Your task to perform on an android device: turn smart compose on in the gmail app Image 0: 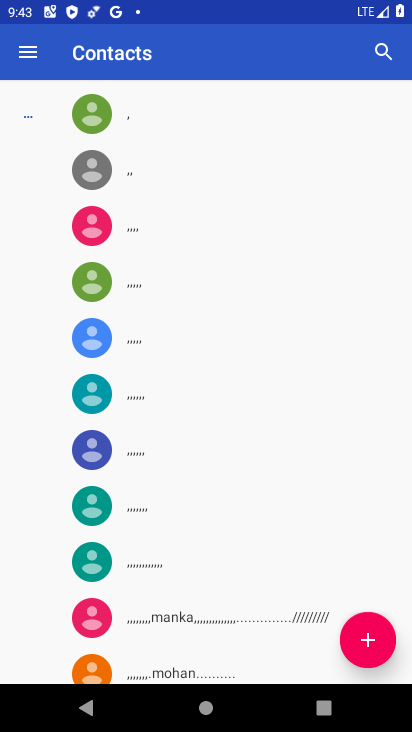
Step 0: press home button
Your task to perform on an android device: turn smart compose on in the gmail app Image 1: 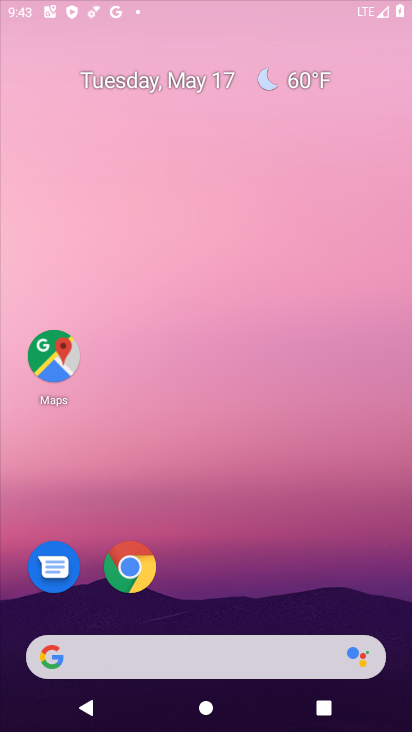
Step 1: drag from (389, 610) to (293, 99)
Your task to perform on an android device: turn smart compose on in the gmail app Image 2: 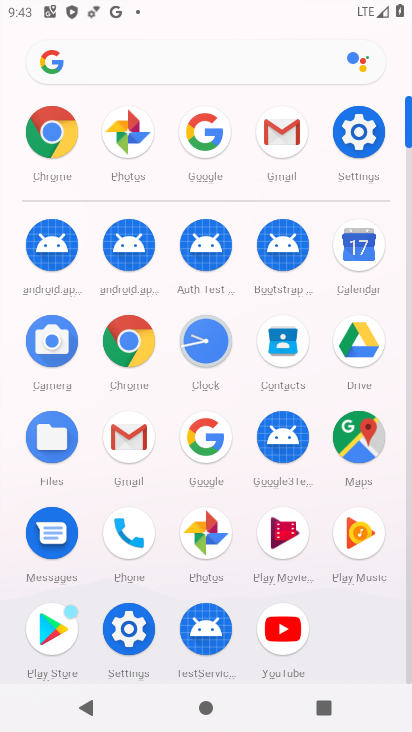
Step 2: click (123, 445)
Your task to perform on an android device: turn smart compose on in the gmail app Image 3: 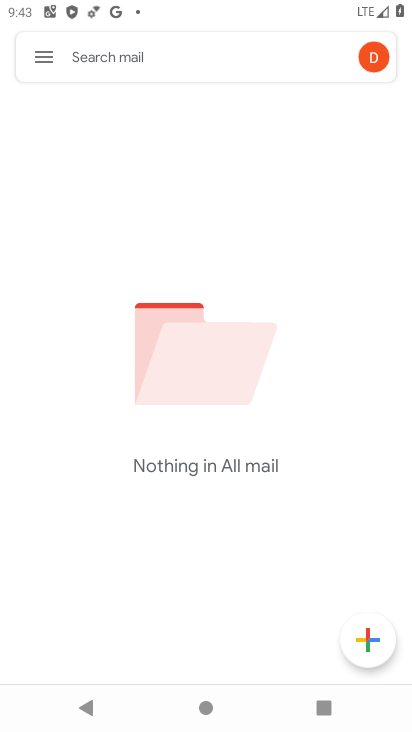
Step 3: click (41, 58)
Your task to perform on an android device: turn smart compose on in the gmail app Image 4: 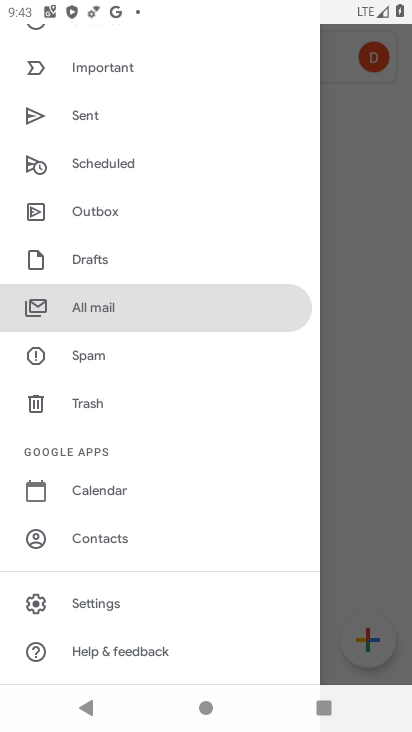
Step 4: click (150, 605)
Your task to perform on an android device: turn smart compose on in the gmail app Image 5: 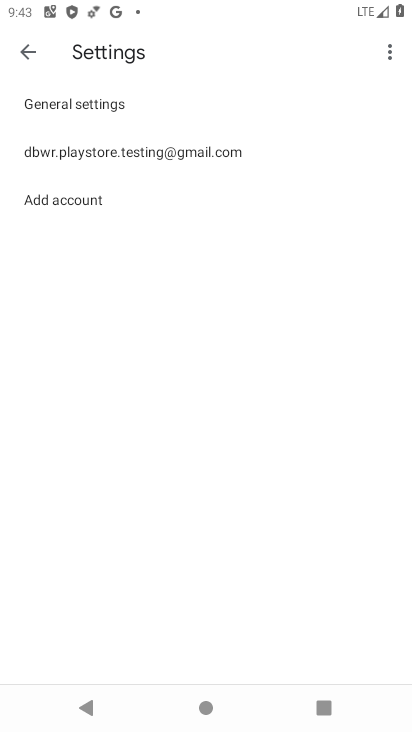
Step 5: click (192, 159)
Your task to perform on an android device: turn smart compose on in the gmail app Image 6: 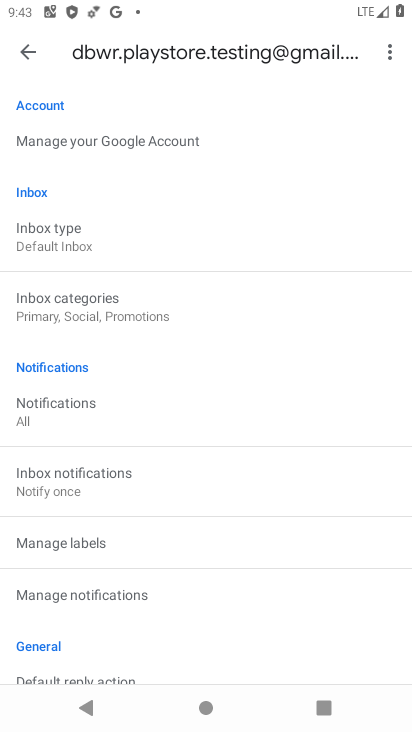
Step 6: task complete